Your task to perform on an android device: open chrome privacy settings Image 0: 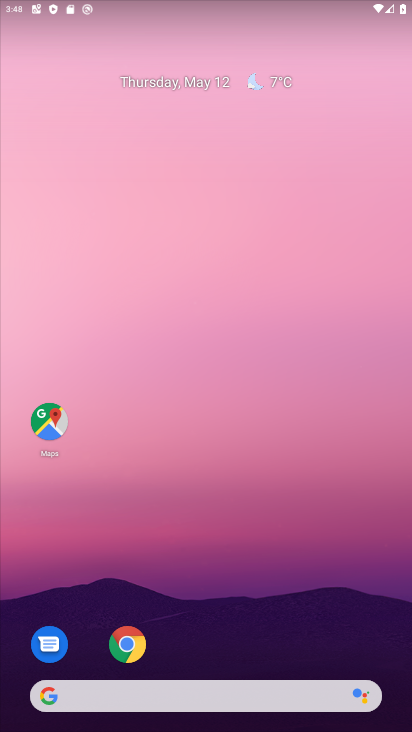
Step 0: drag from (213, 650) to (216, 121)
Your task to perform on an android device: open chrome privacy settings Image 1: 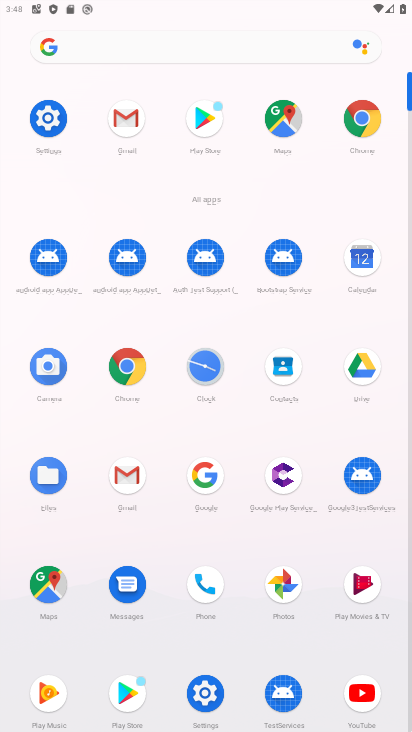
Step 1: click (46, 111)
Your task to perform on an android device: open chrome privacy settings Image 2: 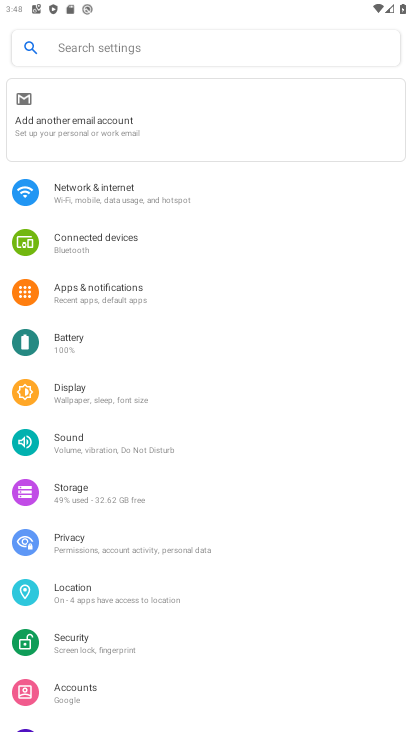
Step 2: click (91, 541)
Your task to perform on an android device: open chrome privacy settings Image 3: 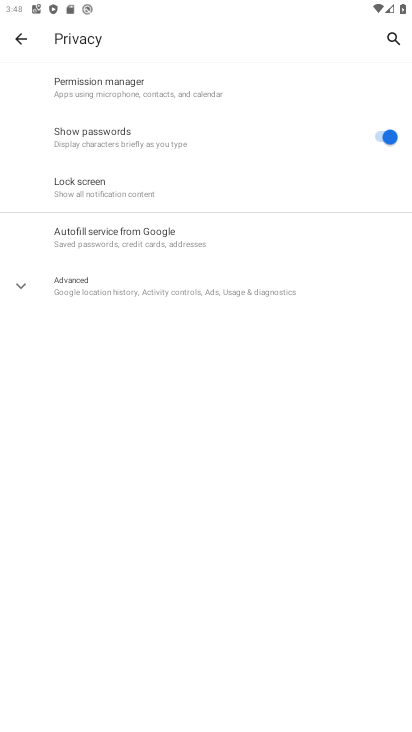
Step 3: click (20, 285)
Your task to perform on an android device: open chrome privacy settings Image 4: 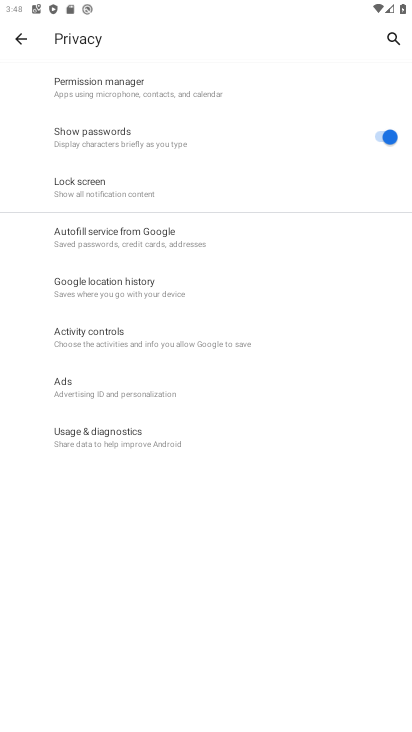
Step 4: task complete